Your task to perform on an android device: Open Google Maps Image 0: 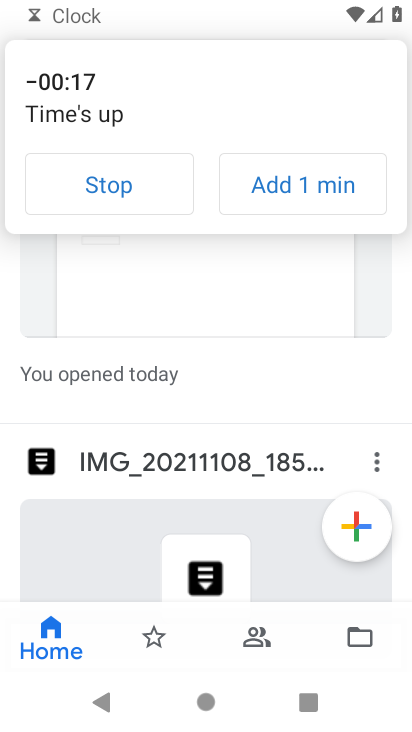
Step 0: press home button
Your task to perform on an android device: Open Google Maps Image 1: 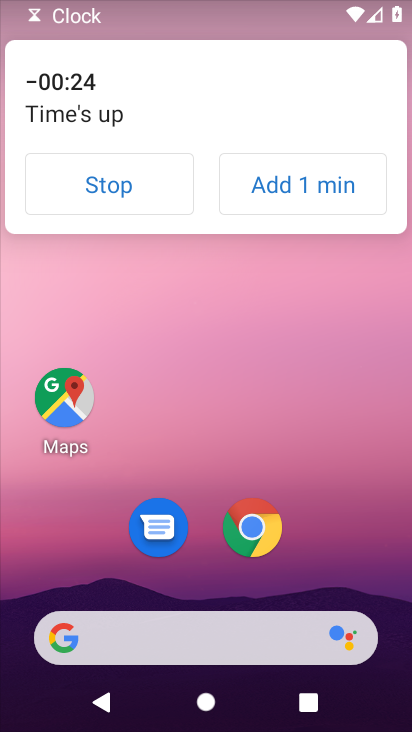
Step 1: click (122, 197)
Your task to perform on an android device: Open Google Maps Image 2: 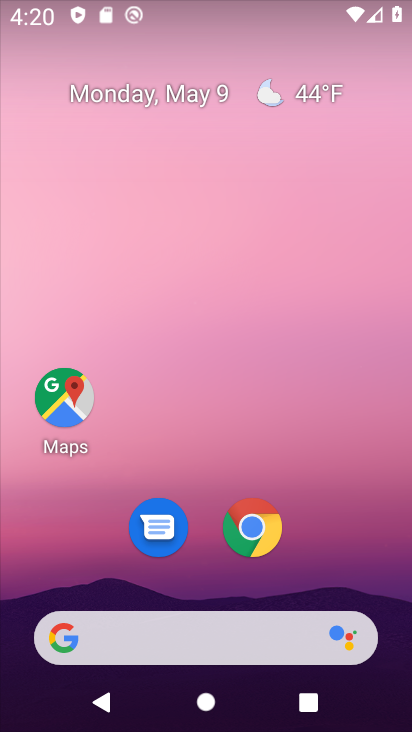
Step 2: click (81, 425)
Your task to perform on an android device: Open Google Maps Image 3: 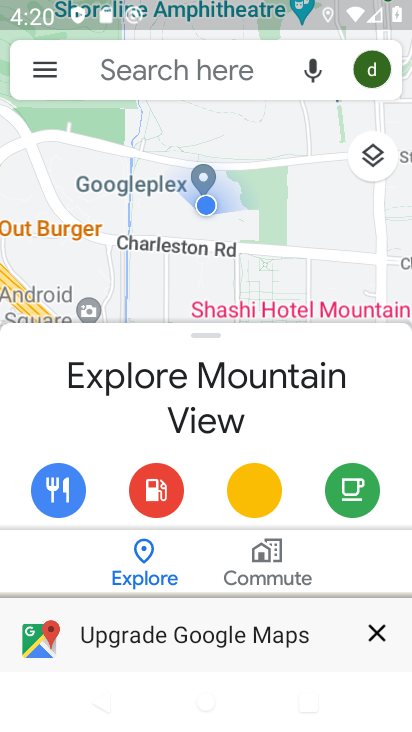
Step 3: task complete